Your task to perform on an android device: turn vacation reply on in the gmail app Image 0: 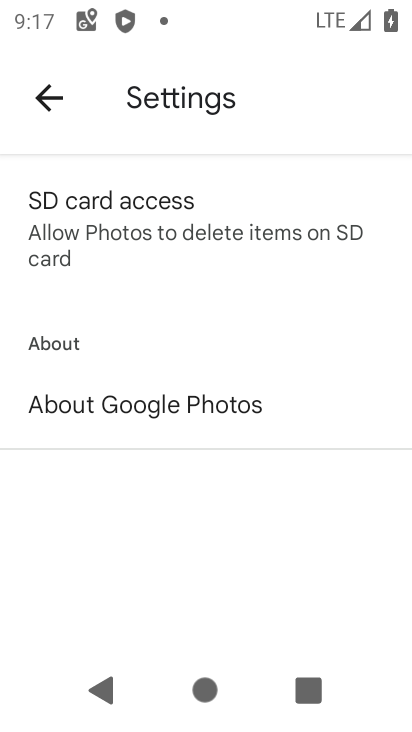
Step 0: press home button
Your task to perform on an android device: turn vacation reply on in the gmail app Image 1: 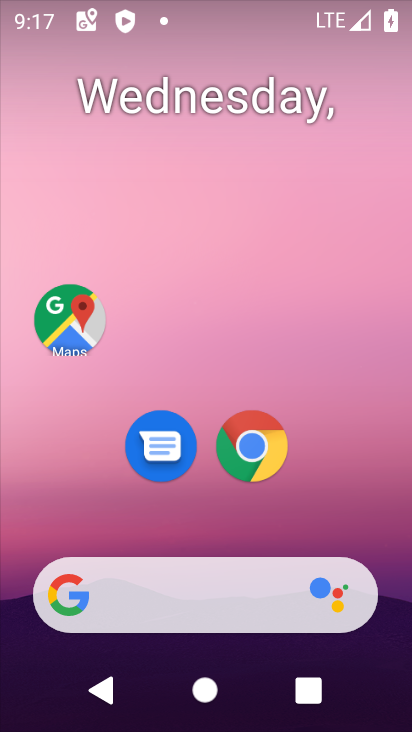
Step 1: drag from (190, 611) to (230, 284)
Your task to perform on an android device: turn vacation reply on in the gmail app Image 2: 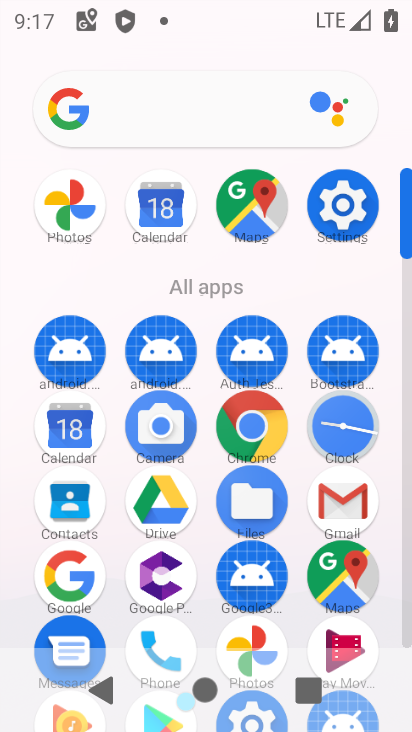
Step 2: click (339, 512)
Your task to perform on an android device: turn vacation reply on in the gmail app Image 3: 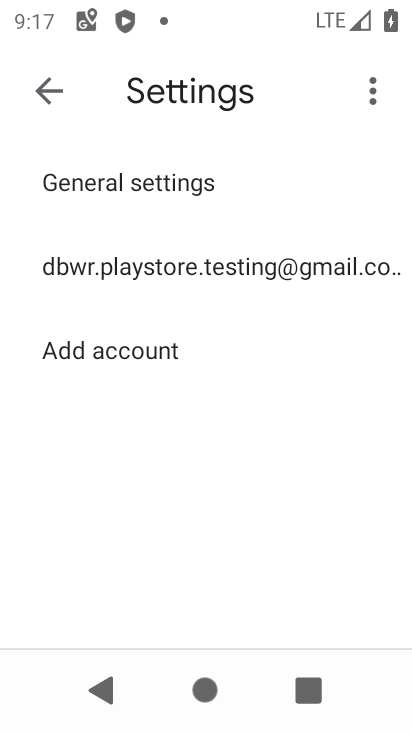
Step 3: click (266, 269)
Your task to perform on an android device: turn vacation reply on in the gmail app Image 4: 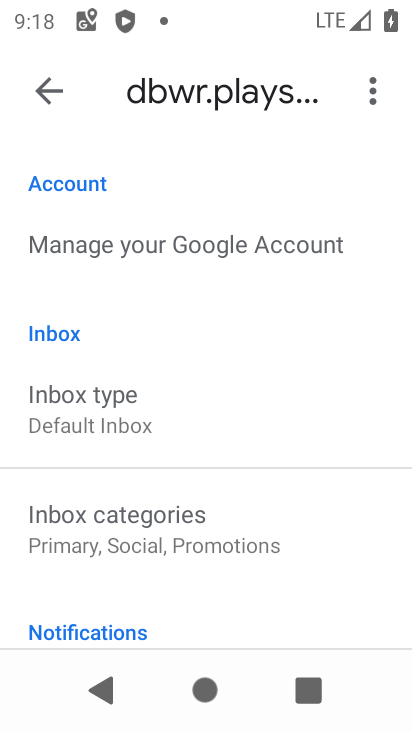
Step 4: drag from (236, 622) to (232, 112)
Your task to perform on an android device: turn vacation reply on in the gmail app Image 5: 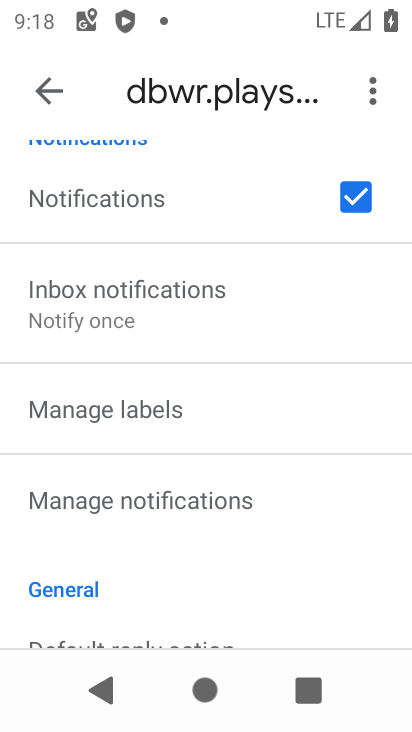
Step 5: drag from (209, 577) to (267, 127)
Your task to perform on an android device: turn vacation reply on in the gmail app Image 6: 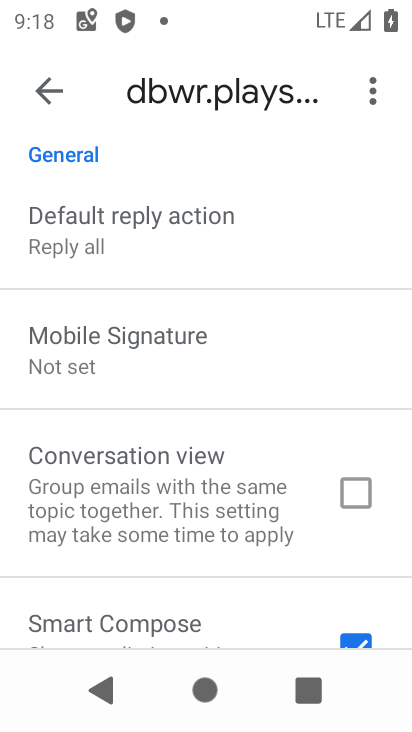
Step 6: drag from (217, 561) to (276, 139)
Your task to perform on an android device: turn vacation reply on in the gmail app Image 7: 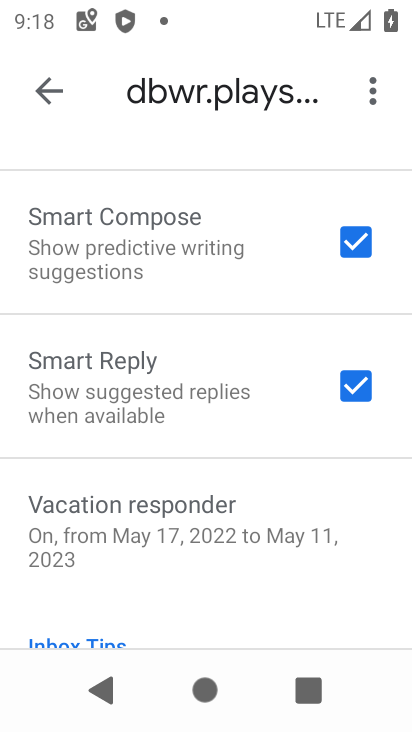
Step 7: click (156, 503)
Your task to perform on an android device: turn vacation reply on in the gmail app Image 8: 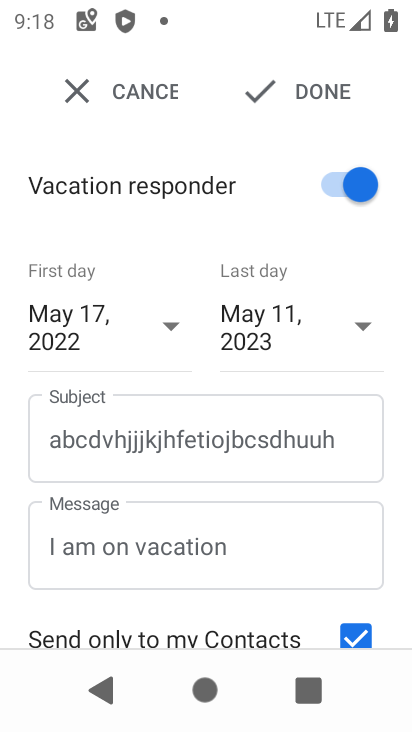
Step 8: task complete